Your task to perform on an android device: Open CNN.com Image 0: 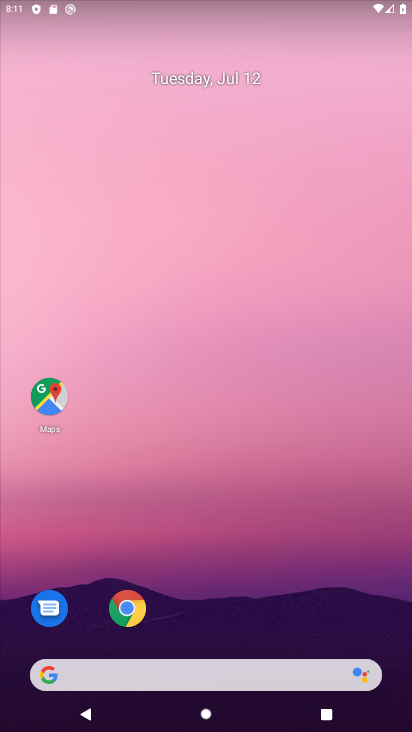
Step 0: click (122, 608)
Your task to perform on an android device: Open CNN.com Image 1: 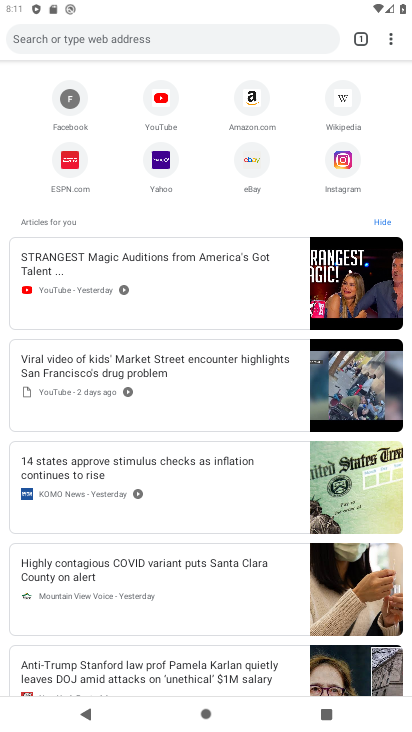
Step 1: click (163, 37)
Your task to perform on an android device: Open CNN.com Image 2: 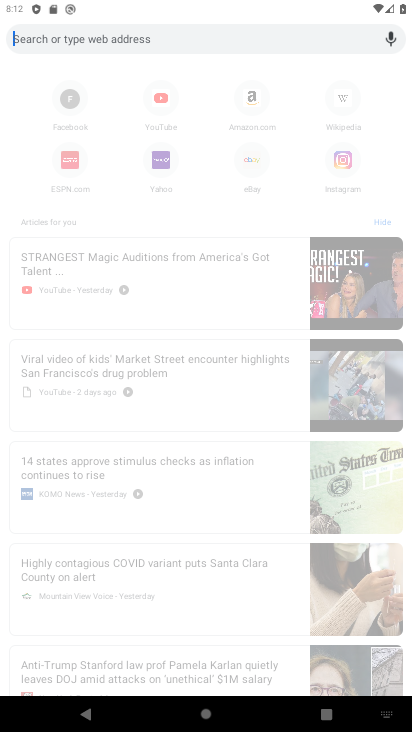
Step 2: type "CNN.com"
Your task to perform on an android device: Open CNN.com Image 3: 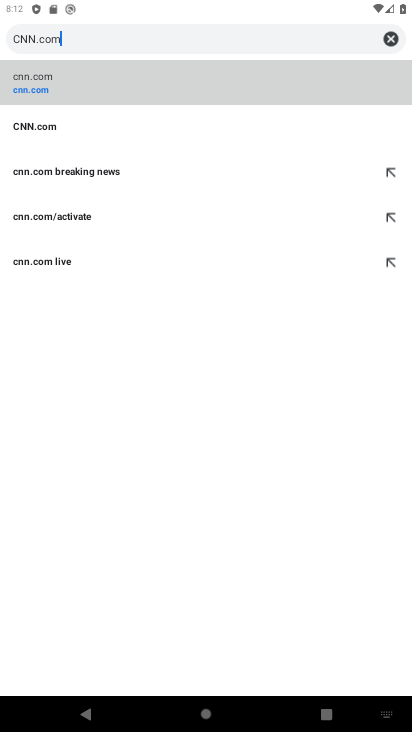
Step 3: click (59, 73)
Your task to perform on an android device: Open CNN.com Image 4: 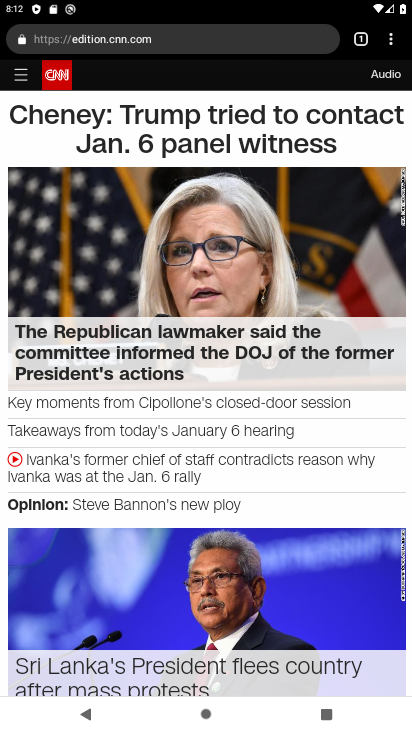
Step 4: task complete